Your task to perform on an android device: Add "usb-c to usb-b" to the cart on newegg, then select checkout. Image 0: 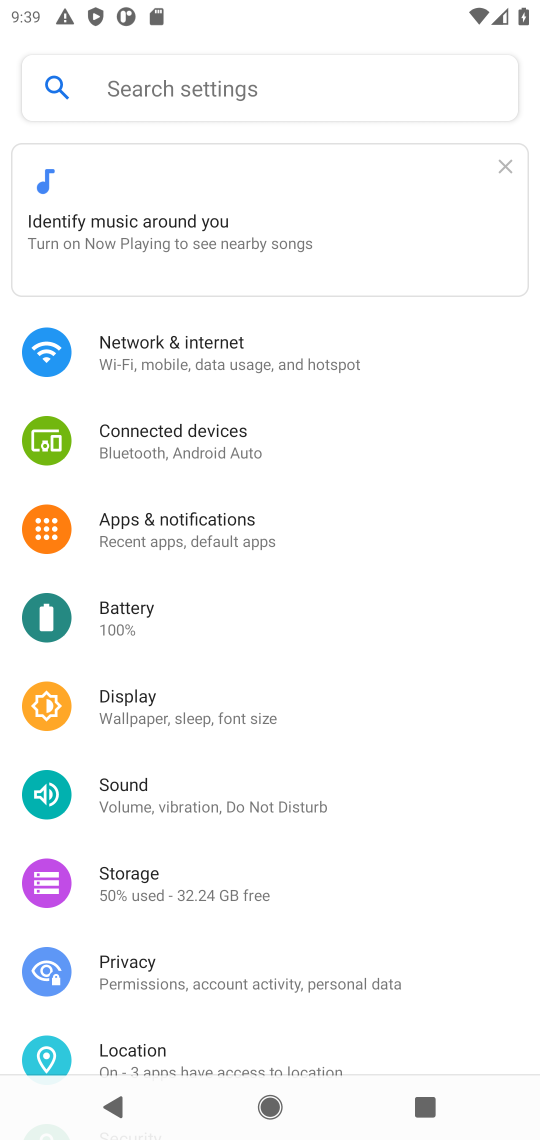
Step 0: press home button
Your task to perform on an android device: Add "usb-c to usb-b" to the cart on newegg, then select checkout. Image 1: 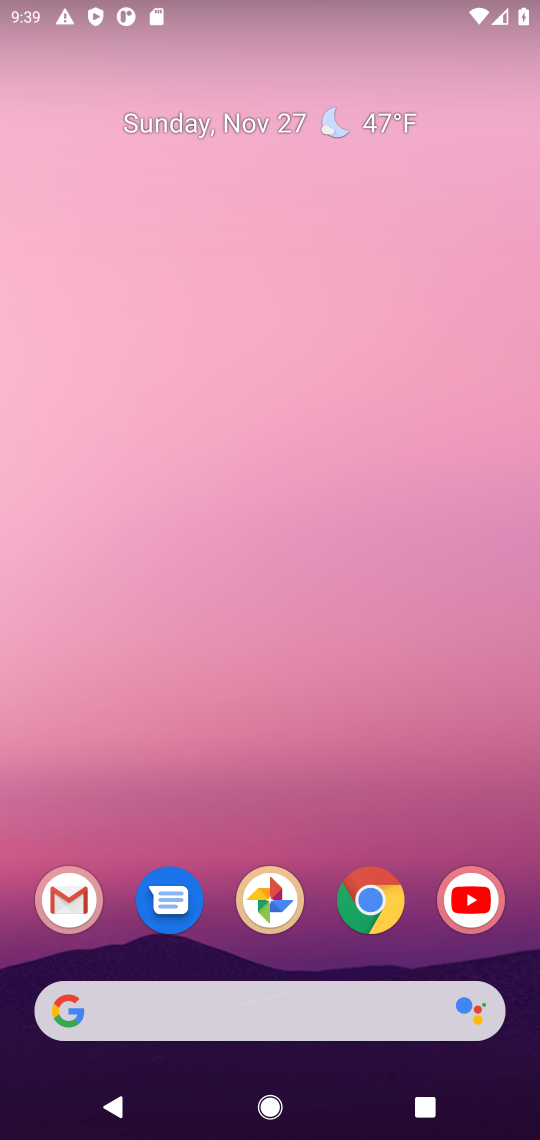
Step 1: click (371, 903)
Your task to perform on an android device: Add "usb-c to usb-b" to the cart on newegg, then select checkout. Image 2: 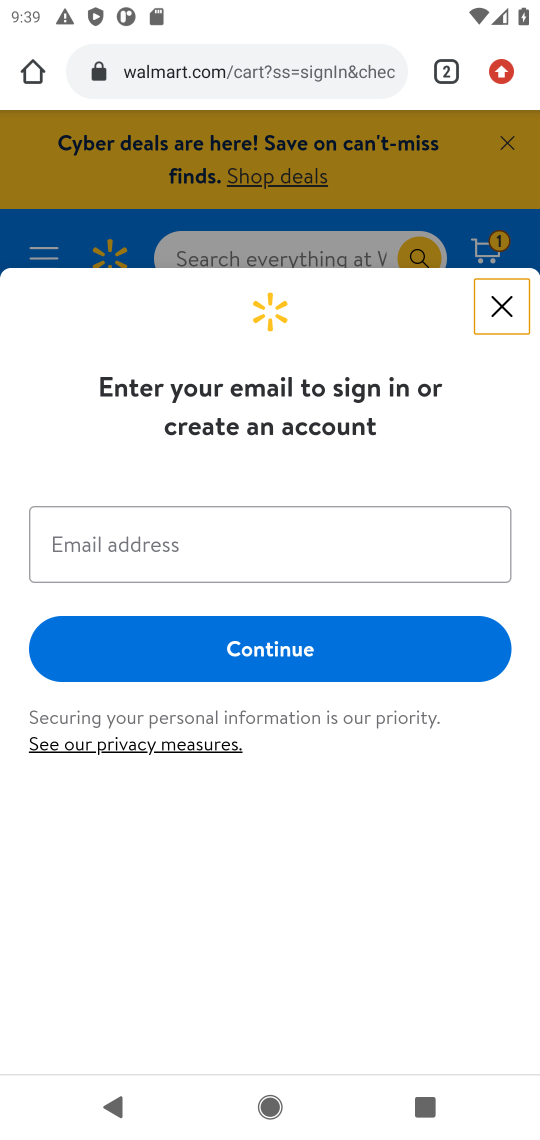
Step 2: click (239, 61)
Your task to perform on an android device: Add "usb-c to usb-b" to the cart on newegg, then select checkout. Image 3: 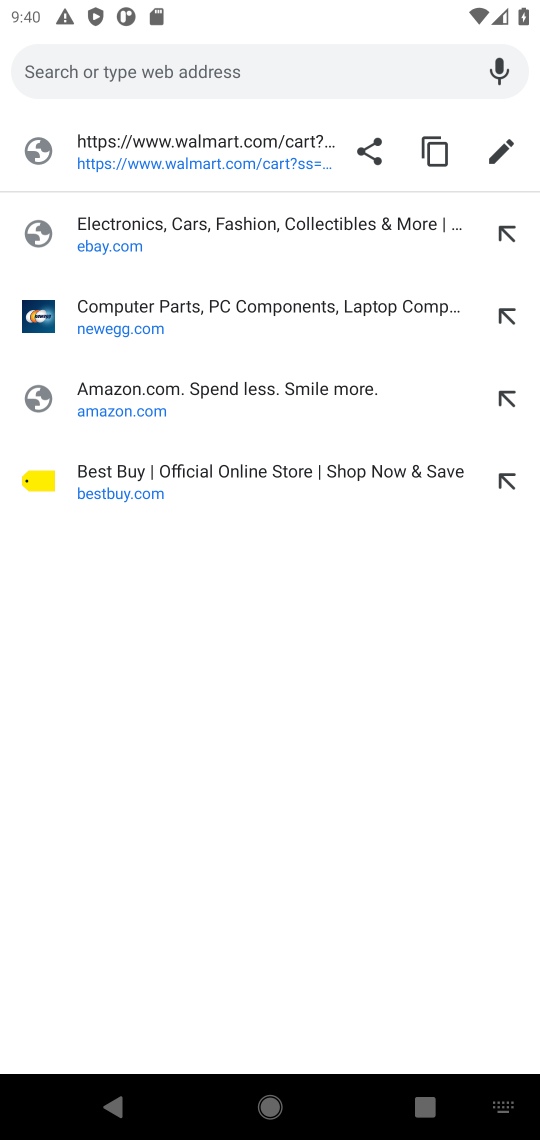
Step 3: type "newegg.com"
Your task to perform on an android device: Add "usb-c to usb-b" to the cart on newegg, then select checkout. Image 4: 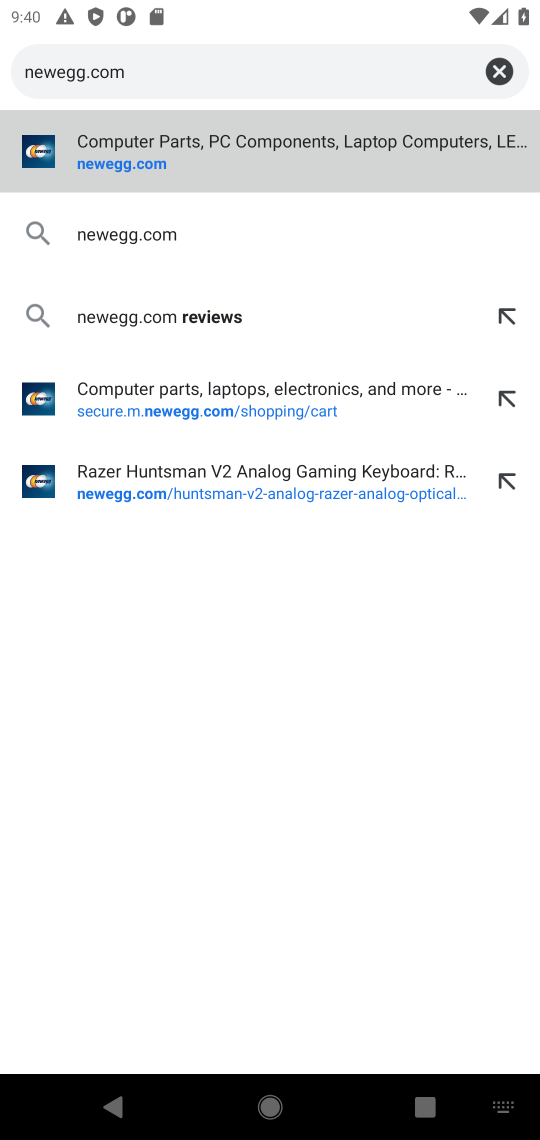
Step 4: click (104, 163)
Your task to perform on an android device: Add "usb-c to usb-b" to the cart on newegg, then select checkout. Image 5: 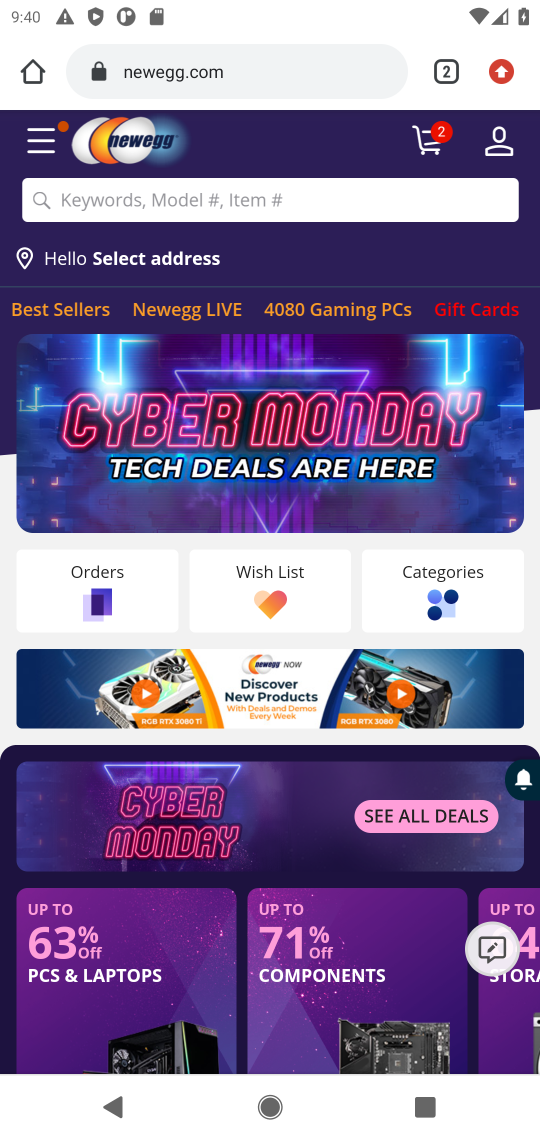
Step 5: click (122, 198)
Your task to perform on an android device: Add "usb-c to usb-b" to the cart on newegg, then select checkout. Image 6: 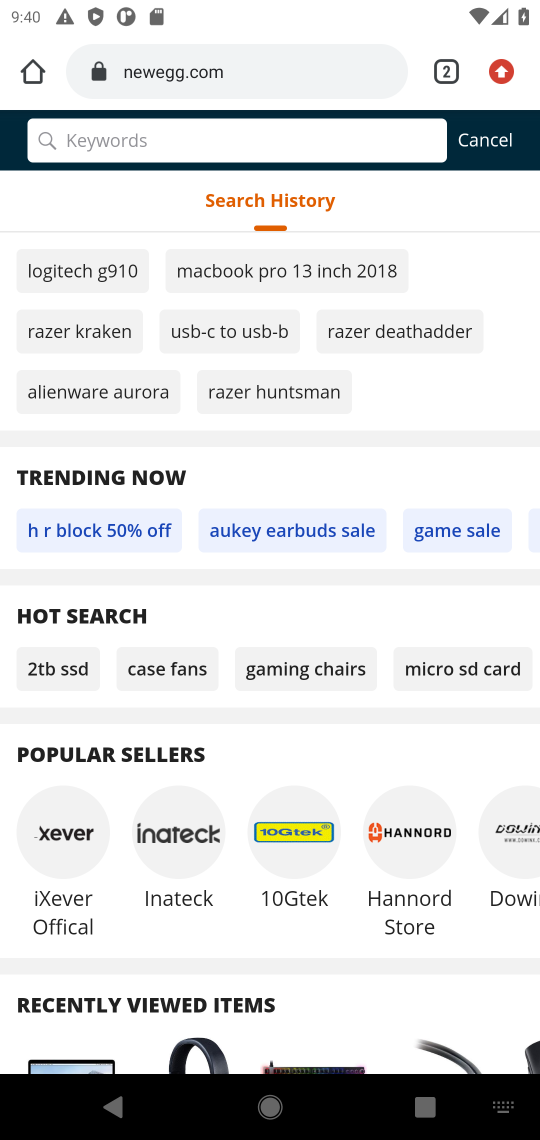
Step 6: type "usb-c to usb-b"
Your task to perform on an android device: Add "usb-c to usb-b" to the cart on newegg, then select checkout. Image 7: 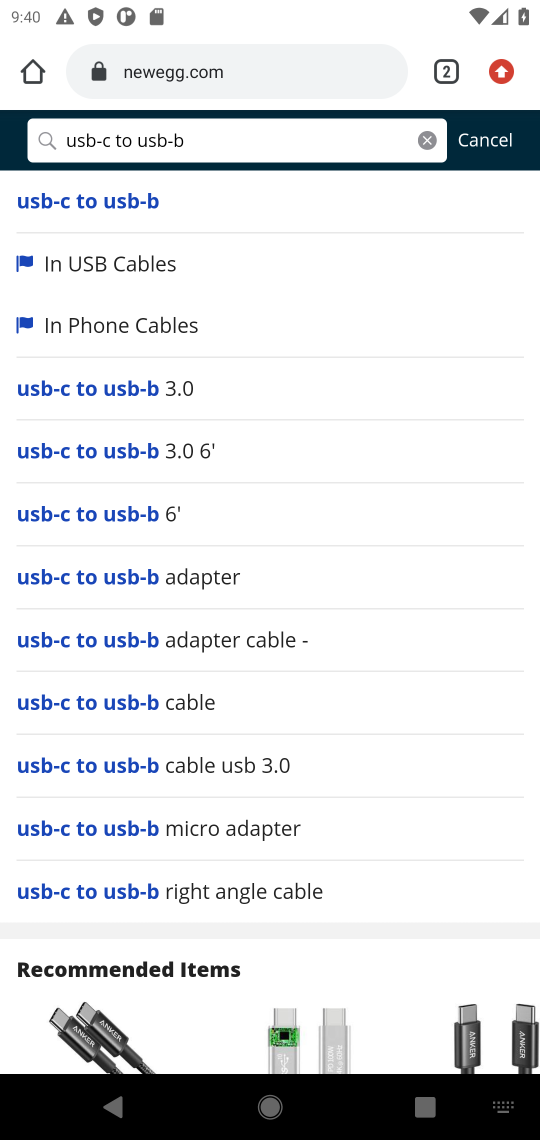
Step 7: click (94, 202)
Your task to perform on an android device: Add "usb-c to usb-b" to the cart on newegg, then select checkout. Image 8: 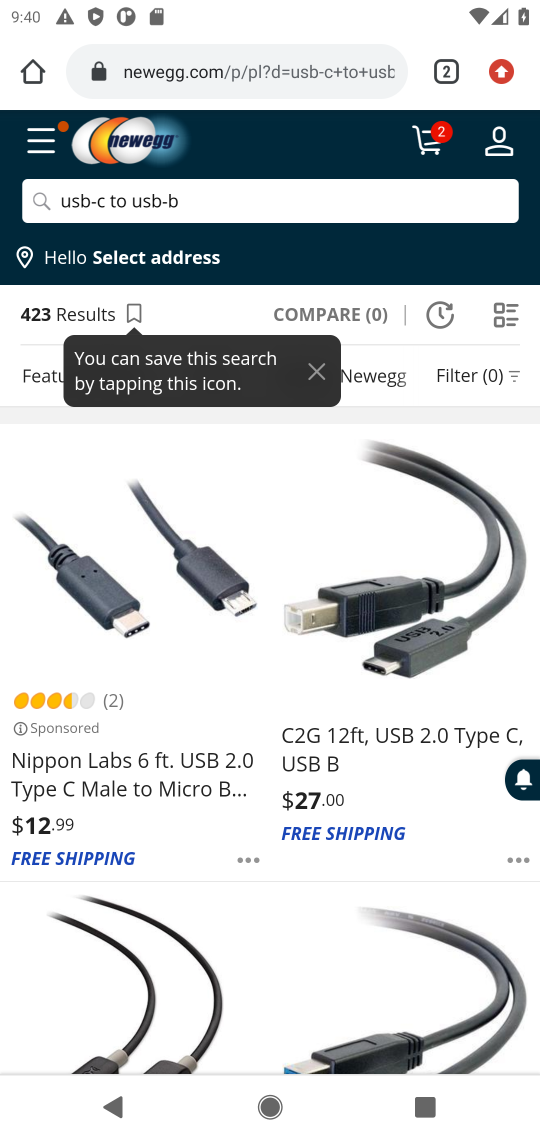
Step 8: click (381, 570)
Your task to perform on an android device: Add "usb-c to usb-b" to the cart on newegg, then select checkout. Image 9: 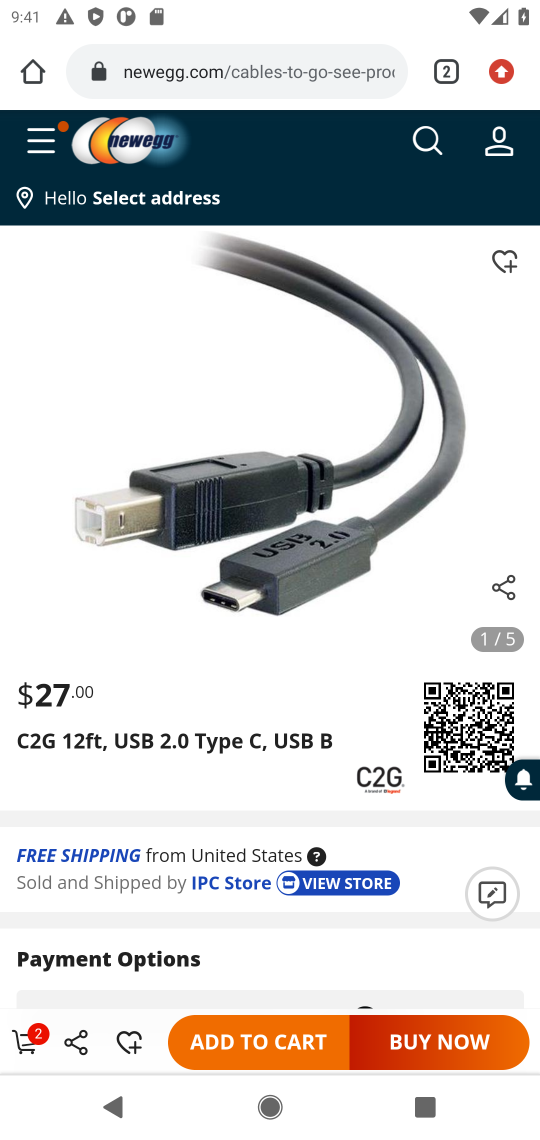
Step 9: click (261, 1043)
Your task to perform on an android device: Add "usb-c to usb-b" to the cart on newegg, then select checkout. Image 10: 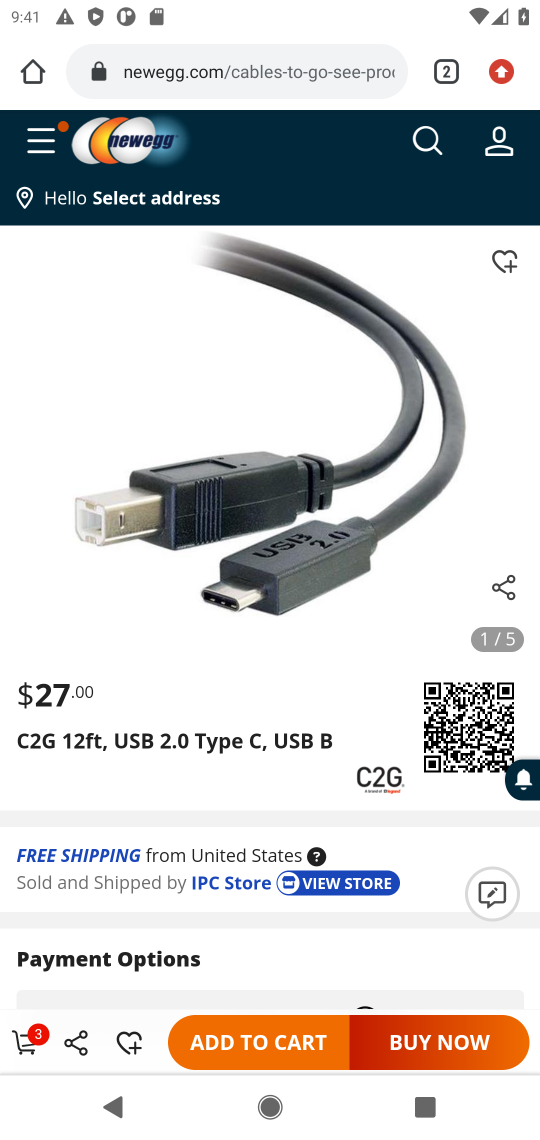
Step 10: click (26, 1043)
Your task to perform on an android device: Add "usb-c to usb-b" to the cart on newegg, then select checkout. Image 11: 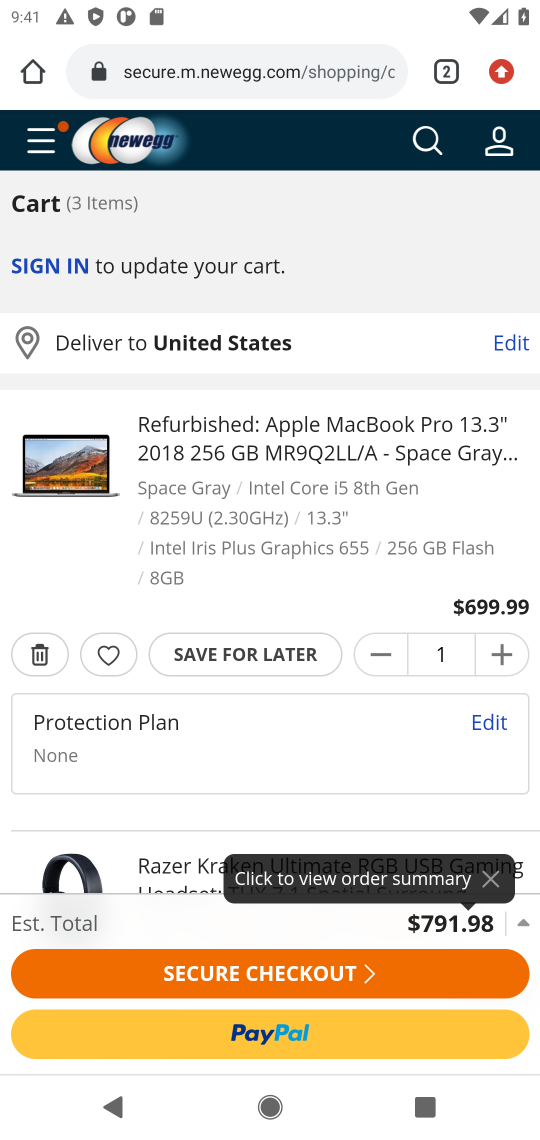
Step 11: click (243, 973)
Your task to perform on an android device: Add "usb-c to usb-b" to the cart on newegg, then select checkout. Image 12: 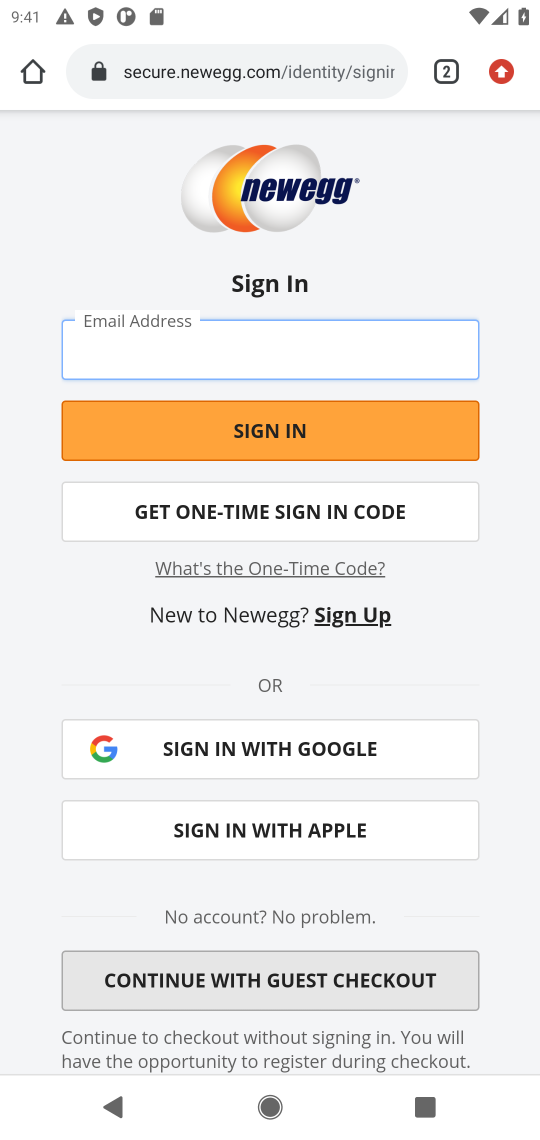
Step 12: task complete